Your task to perform on an android device: Open wifi settings Image 0: 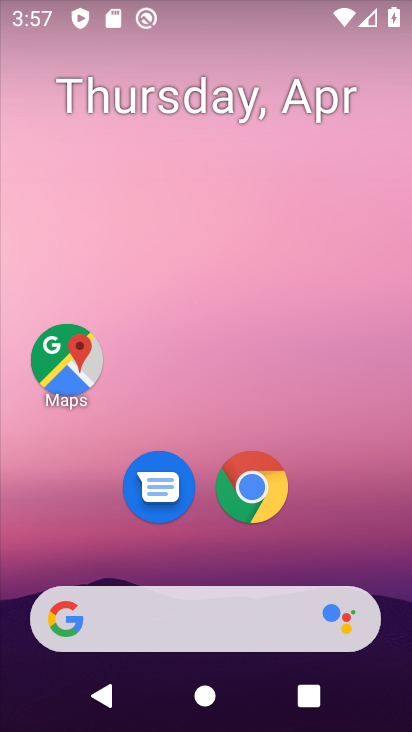
Step 0: drag from (197, 518) to (214, 130)
Your task to perform on an android device: Open wifi settings Image 1: 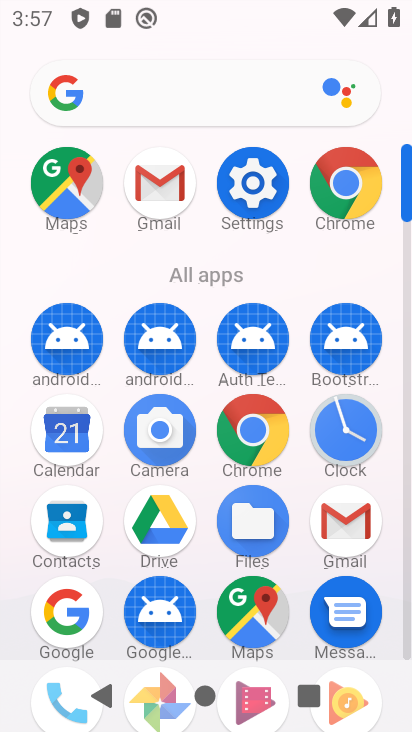
Step 1: click (258, 188)
Your task to perform on an android device: Open wifi settings Image 2: 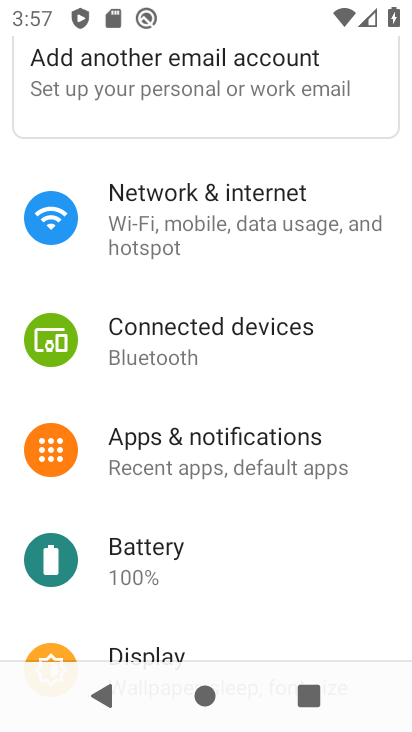
Step 2: click (258, 188)
Your task to perform on an android device: Open wifi settings Image 3: 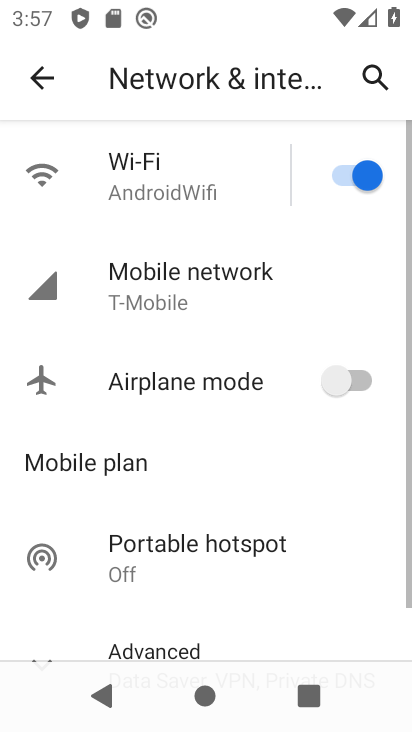
Step 3: click (210, 169)
Your task to perform on an android device: Open wifi settings Image 4: 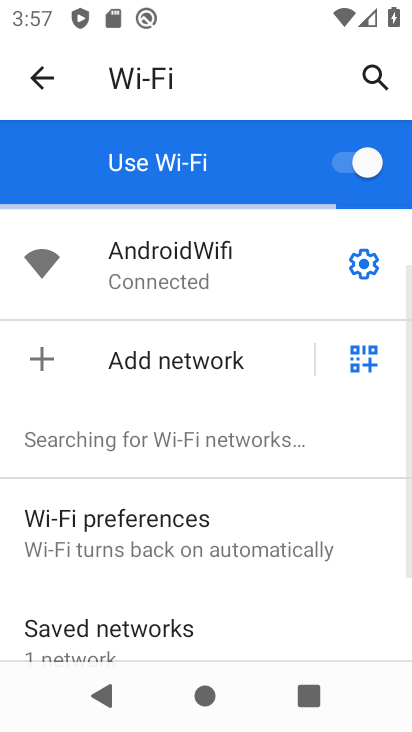
Step 4: task complete